Your task to perform on an android device: Show me the alarms in the clock app Image 0: 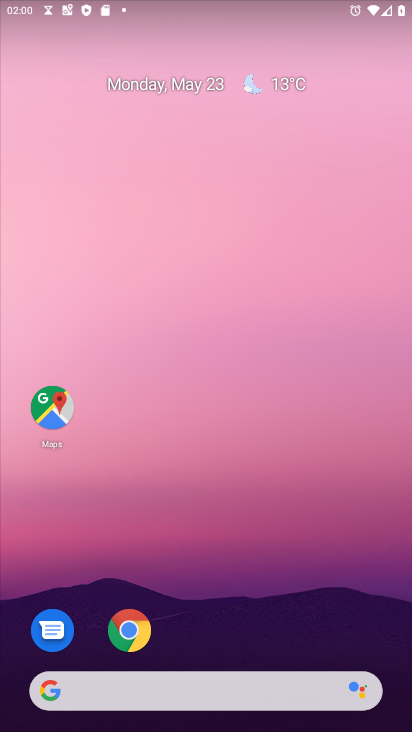
Step 0: drag from (259, 416) to (180, 47)
Your task to perform on an android device: Show me the alarms in the clock app Image 1: 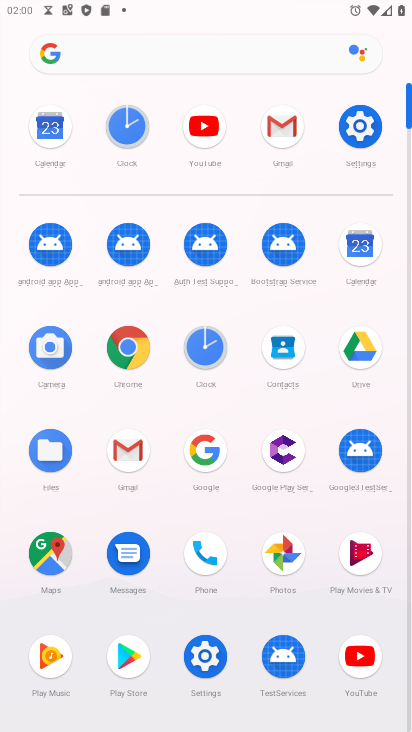
Step 1: click (199, 347)
Your task to perform on an android device: Show me the alarms in the clock app Image 2: 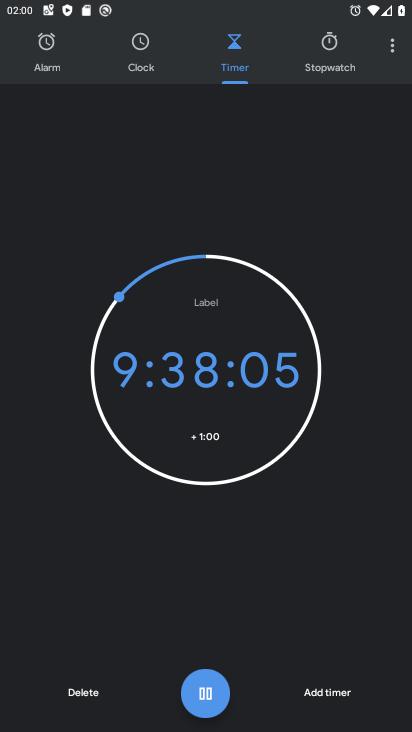
Step 2: click (42, 63)
Your task to perform on an android device: Show me the alarms in the clock app Image 3: 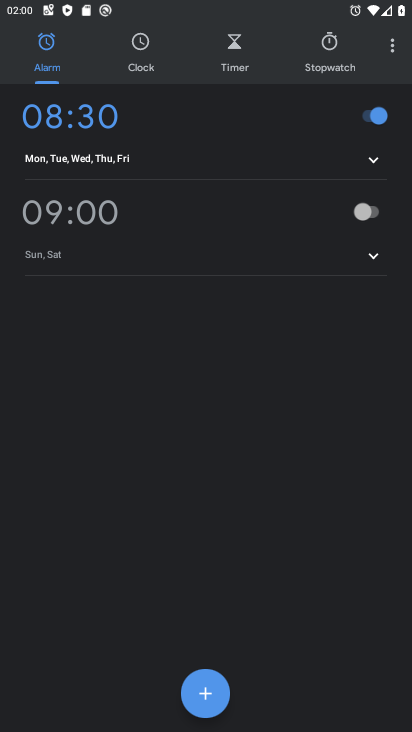
Step 3: task complete